Your task to perform on an android device: Open Youtube and go to the subscriptions tab Image 0: 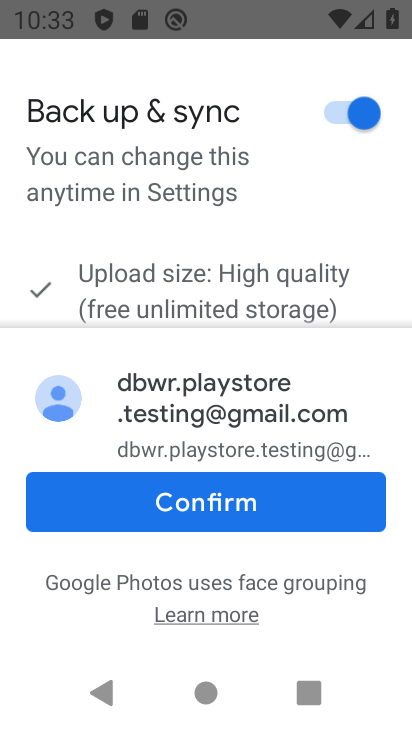
Step 0: press home button
Your task to perform on an android device: Open Youtube and go to the subscriptions tab Image 1: 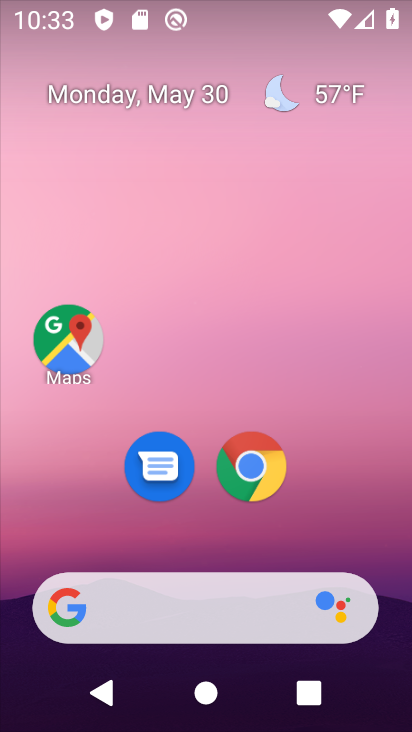
Step 1: drag from (365, 538) to (334, 66)
Your task to perform on an android device: Open Youtube and go to the subscriptions tab Image 2: 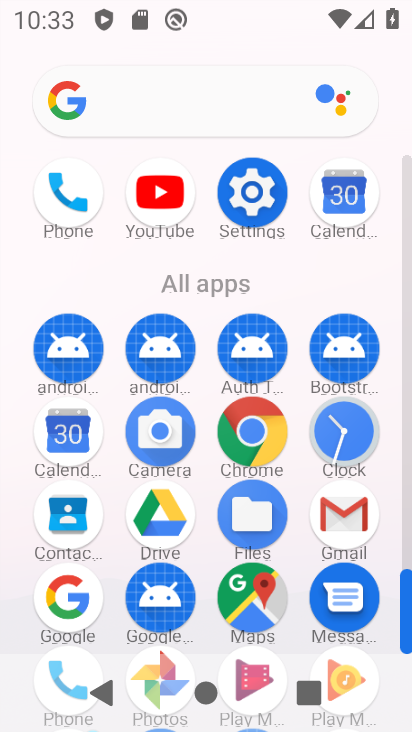
Step 2: click (148, 193)
Your task to perform on an android device: Open Youtube and go to the subscriptions tab Image 3: 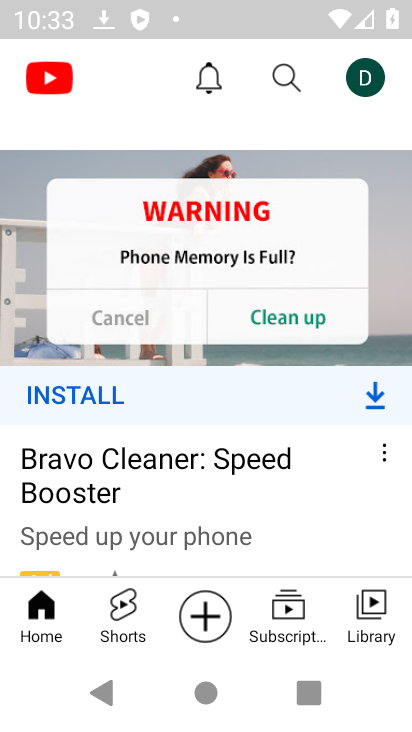
Step 3: click (286, 609)
Your task to perform on an android device: Open Youtube and go to the subscriptions tab Image 4: 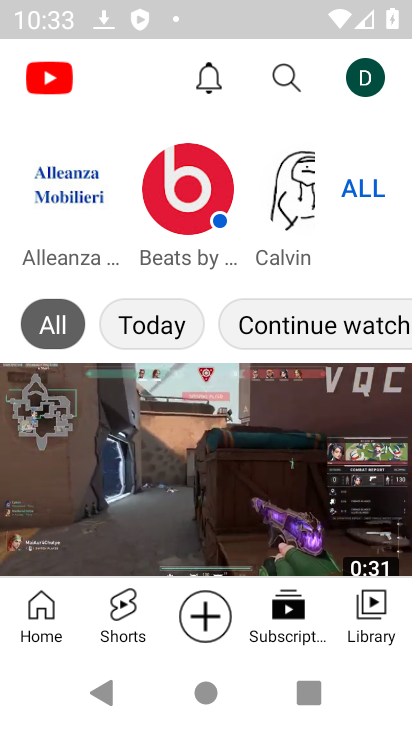
Step 4: click (285, 609)
Your task to perform on an android device: Open Youtube and go to the subscriptions tab Image 5: 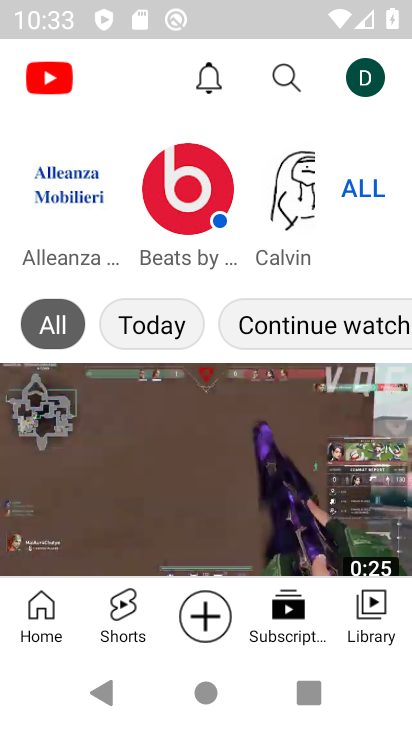
Step 5: task complete